Your task to perform on an android device: What's the weather? Image 0: 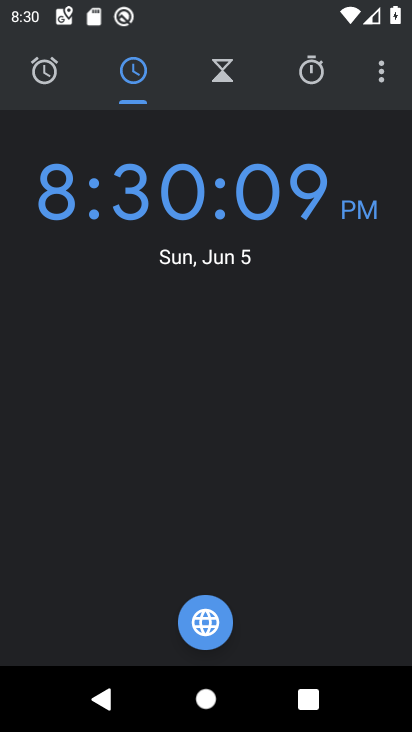
Step 0: press home button
Your task to perform on an android device: What's the weather? Image 1: 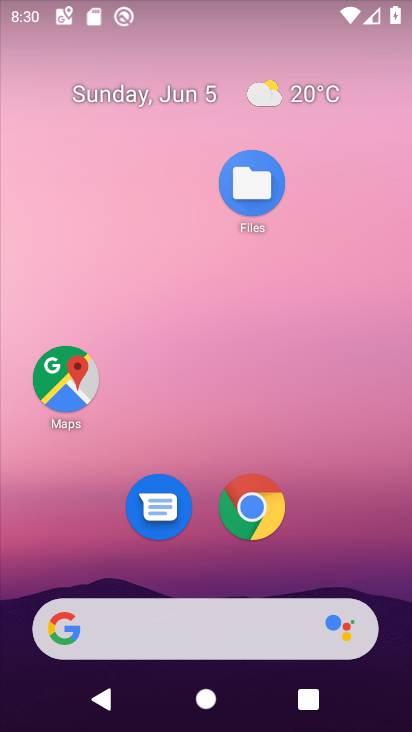
Step 1: click (249, 613)
Your task to perform on an android device: What's the weather? Image 2: 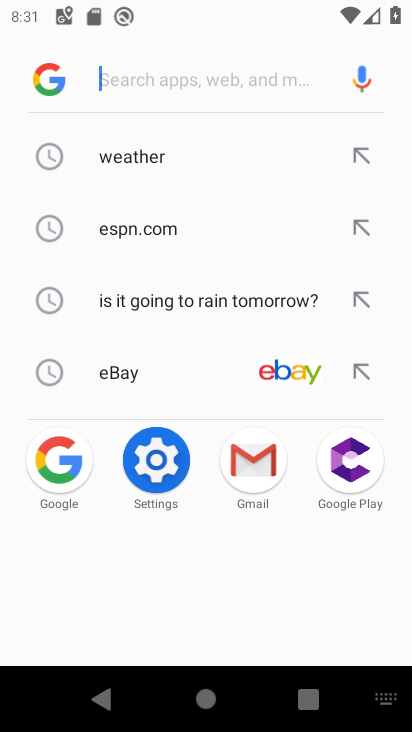
Step 2: click (153, 153)
Your task to perform on an android device: What's the weather? Image 3: 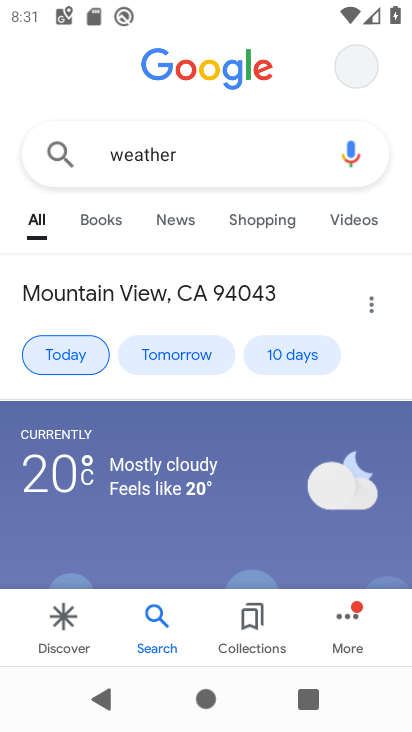
Step 3: task complete